Your task to perform on an android device: Go to display settings Image 0: 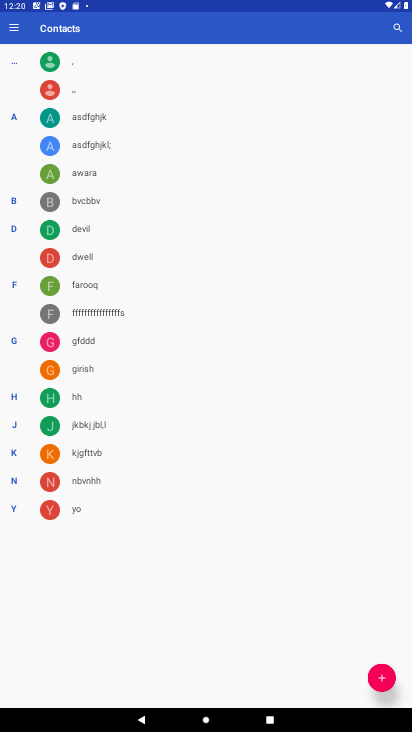
Step 0: press home button
Your task to perform on an android device: Go to display settings Image 1: 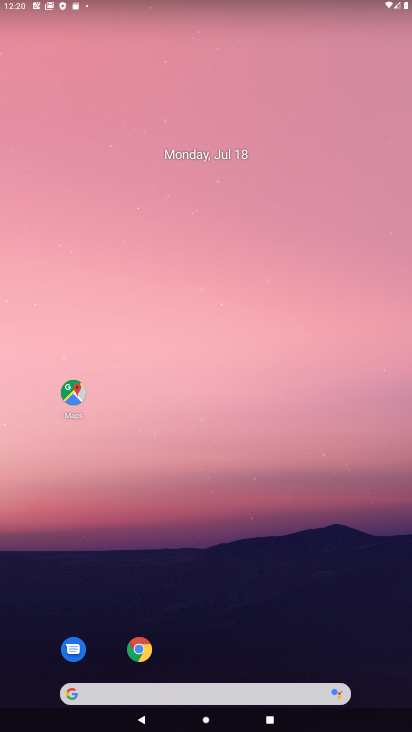
Step 1: drag from (368, 650) to (312, 92)
Your task to perform on an android device: Go to display settings Image 2: 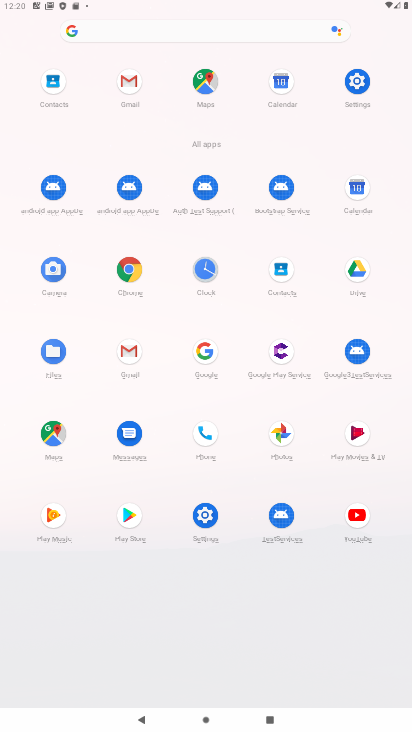
Step 2: click (204, 520)
Your task to perform on an android device: Go to display settings Image 3: 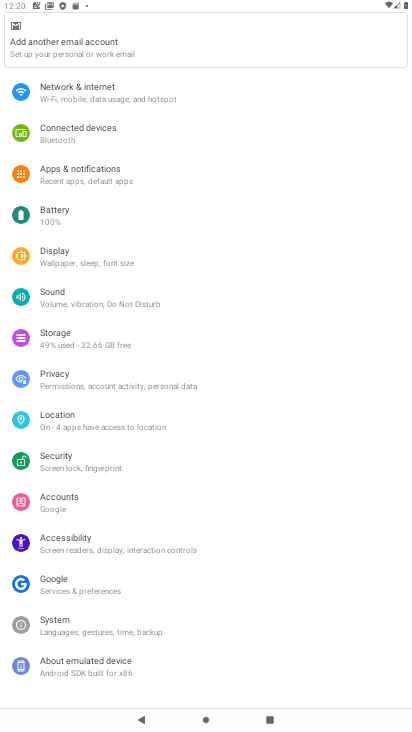
Step 3: click (49, 257)
Your task to perform on an android device: Go to display settings Image 4: 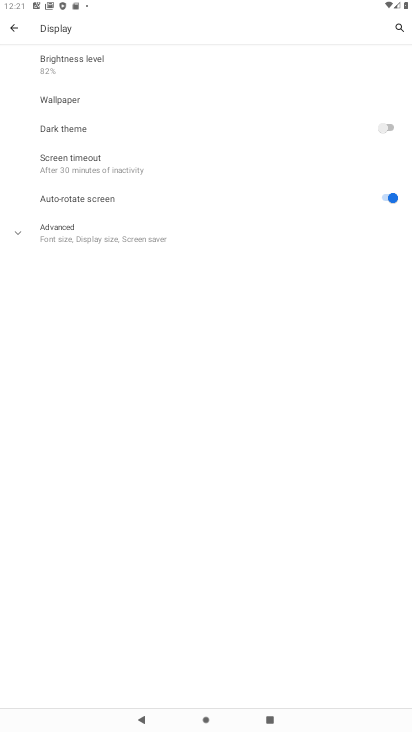
Step 4: click (16, 237)
Your task to perform on an android device: Go to display settings Image 5: 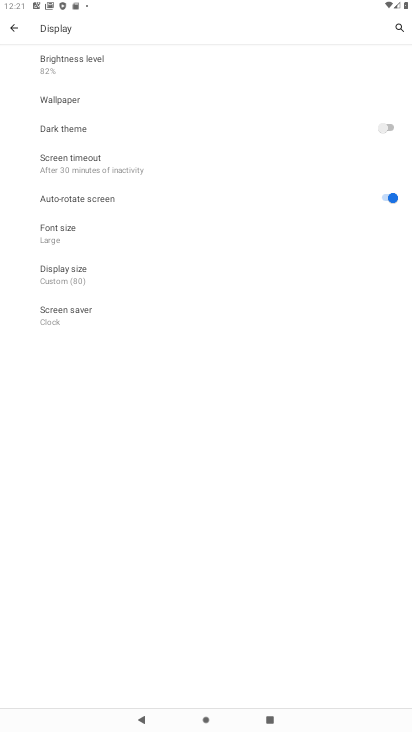
Step 5: task complete